Your task to perform on an android device: Open calendar and show me the second week of next month Image 0: 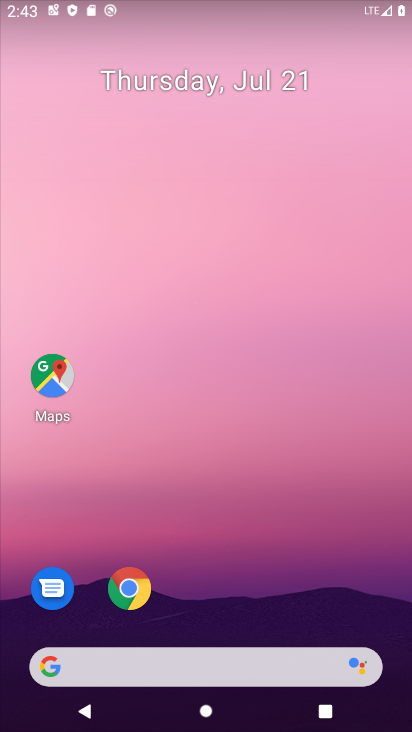
Step 0: drag from (172, 602) to (266, 352)
Your task to perform on an android device: Open calendar and show me the second week of next month Image 1: 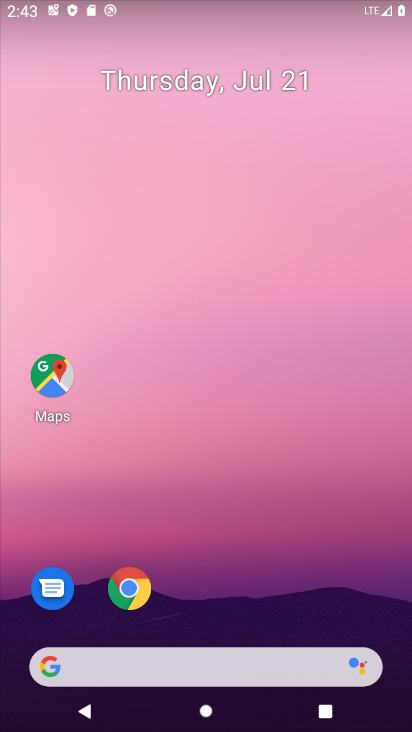
Step 1: drag from (189, 615) to (234, 314)
Your task to perform on an android device: Open calendar and show me the second week of next month Image 2: 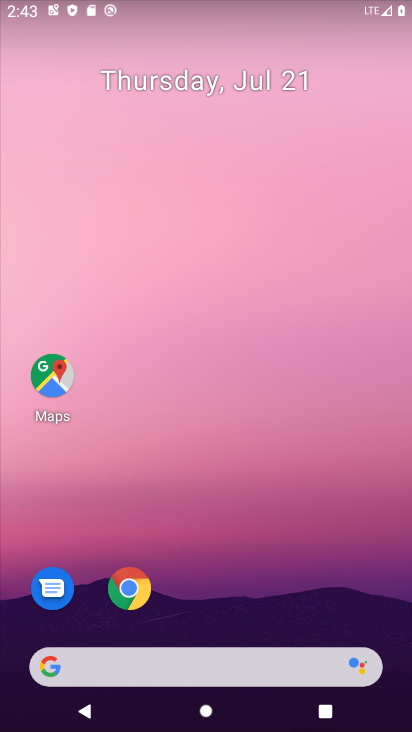
Step 2: drag from (233, 631) to (263, 242)
Your task to perform on an android device: Open calendar and show me the second week of next month Image 3: 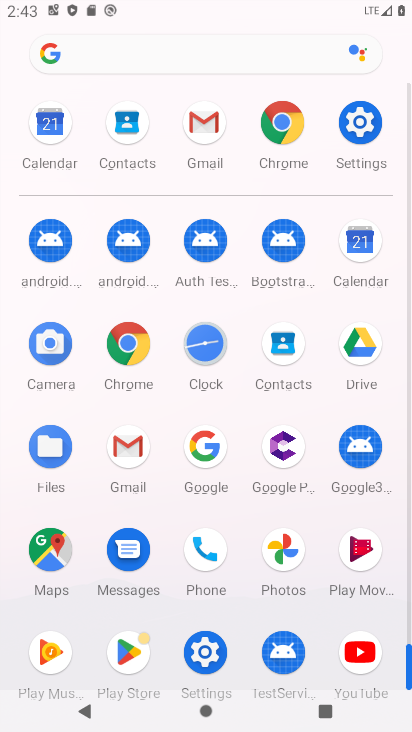
Step 3: drag from (260, 610) to (271, 438)
Your task to perform on an android device: Open calendar and show me the second week of next month Image 4: 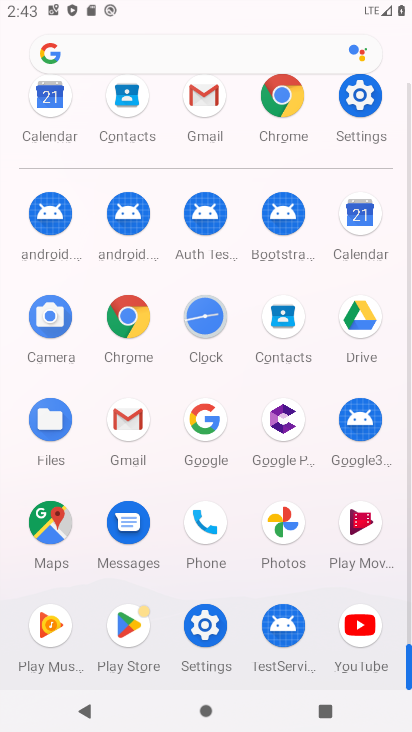
Step 4: click (203, 629)
Your task to perform on an android device: Open calendar and show me the second week of next month Image 5: 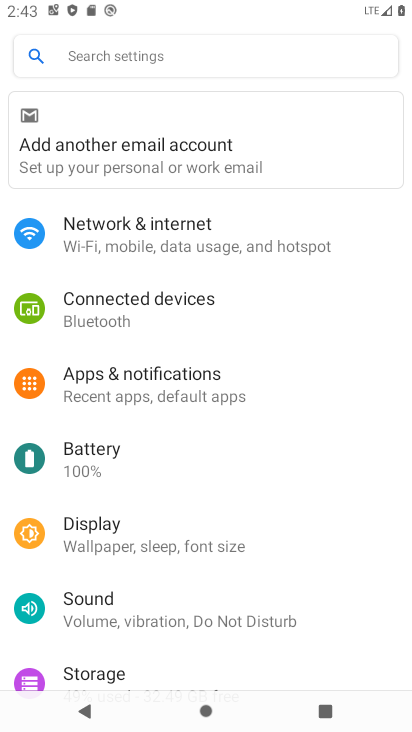
Step 5: press home button
Your task to perform on an android device: Open calendar and show me the second week of next month Image 6: 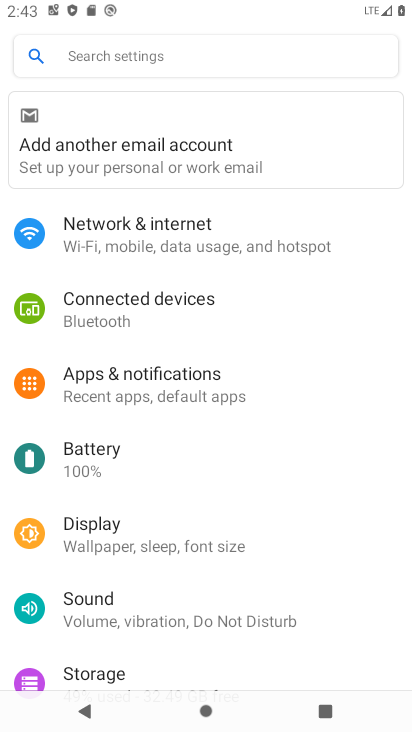
Step 6: press home button
Your task to perform on an android device: Open calendar and show me the second week of next month Image 7: 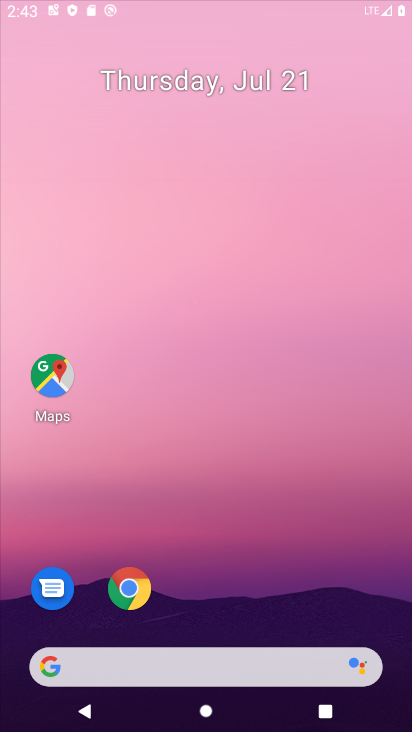
Step 7: drag from (183, 616) to (381, 17)
Your task to perform on an android device: Open calendar and show me the second week of next month Image 8: 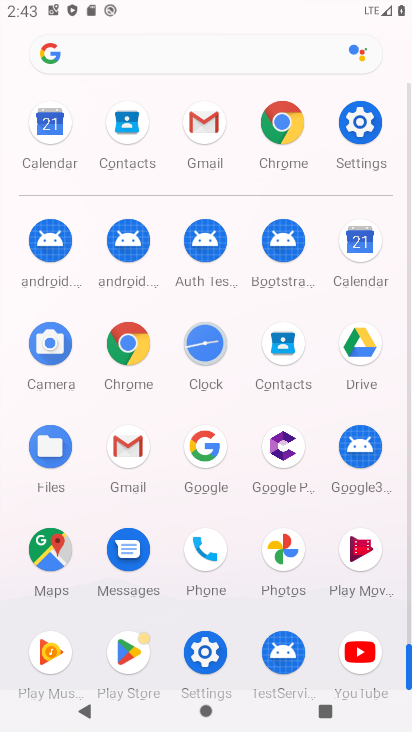
Step 8: drag from (169, 613) to (189, 181)
Your task to perform on an android device: Open calendar and show me the second week of next month Image 9: 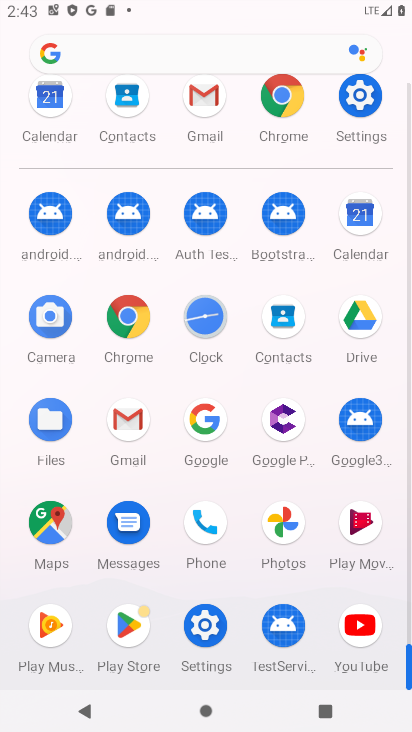
Step 9: click (354, 204)
Your task to perform on an android device: Open calendar and show me the second week of next month Image 10: 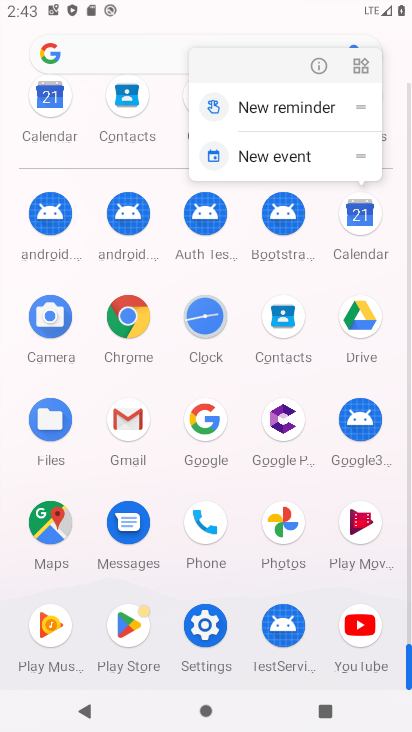
Step 10: click (316, 65)
Your task to perform on an android device: Open calendar and show me the second week of next month Image 11: 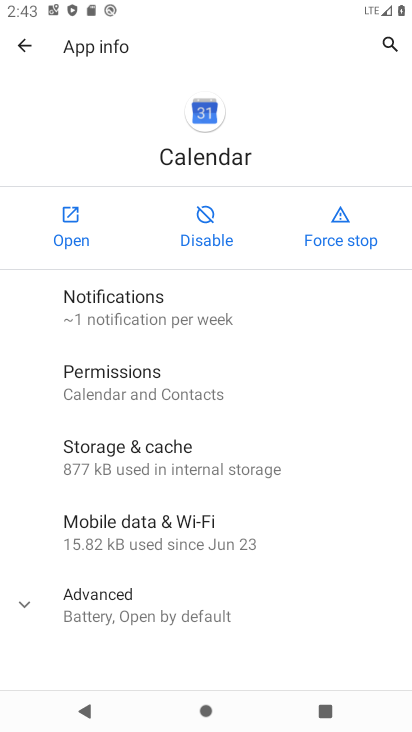
Step 11: click (68, 235)
Your task to perform on an android device: Open calendar and show me the second week of next month Image 12: 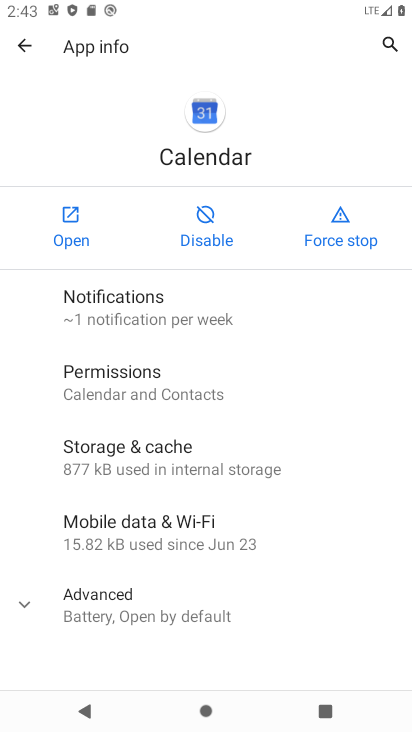
Step 12: click (66, 232)
Your task to perform on an android device: Open calendar and show me the second week of next month Image 13: 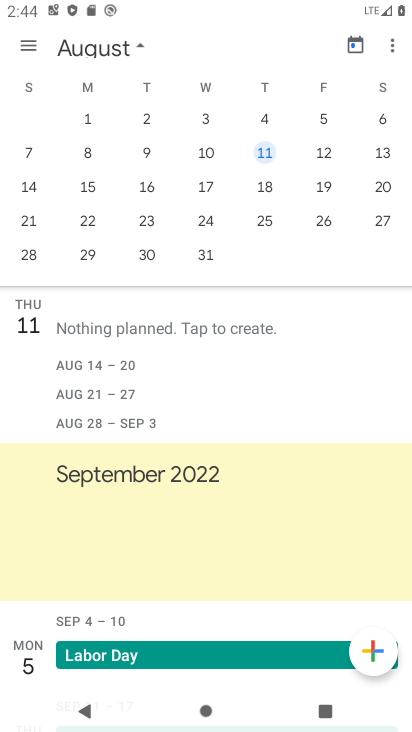
Step 13: click (81, 52)
Your task to perform on an android device: Open calendar and show me the second week of next month Image 14: 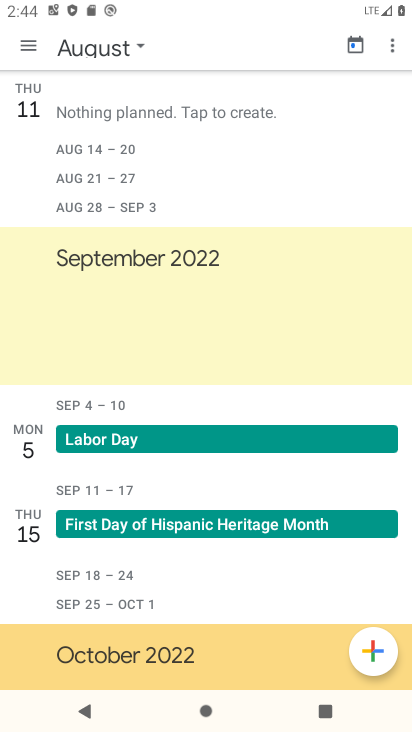
Step 14: click (372, 45)
Your task to perform on an android device: Open calendar and show me the second week of next month Image 15: 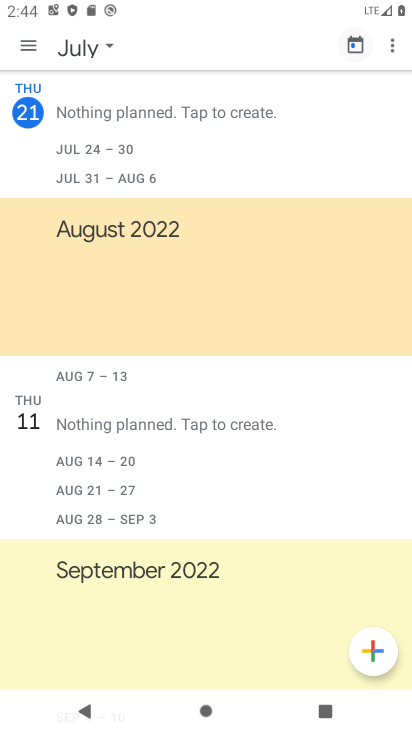
Step 15: click (372, 45)
Your task to perform on an android device: Open calendar and show me the second week of next month Image 16: 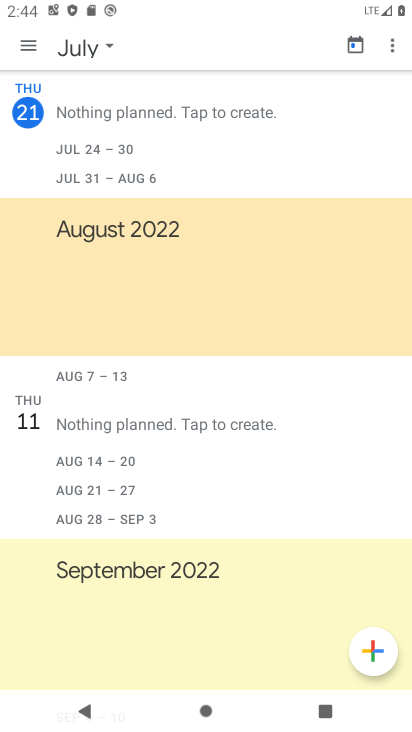
Step 16: click (366, 37)
Your task to perform on an android device: Open calendar and show me the second week of next month Image 17: 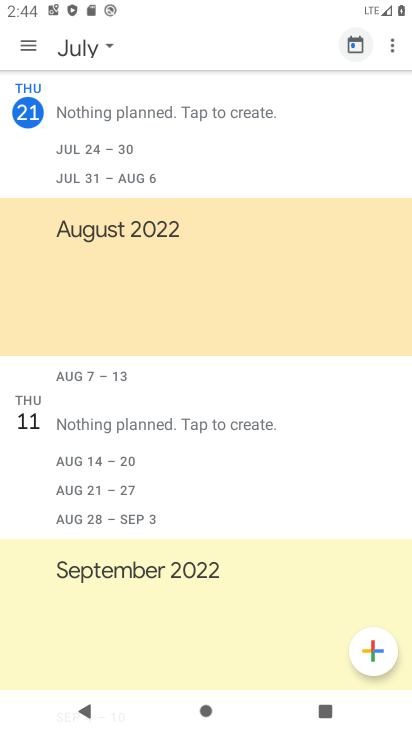
Step 17: click (344, 43)
Your task to perform on an android device: Open calendar and show me the second week of next month Image 18: 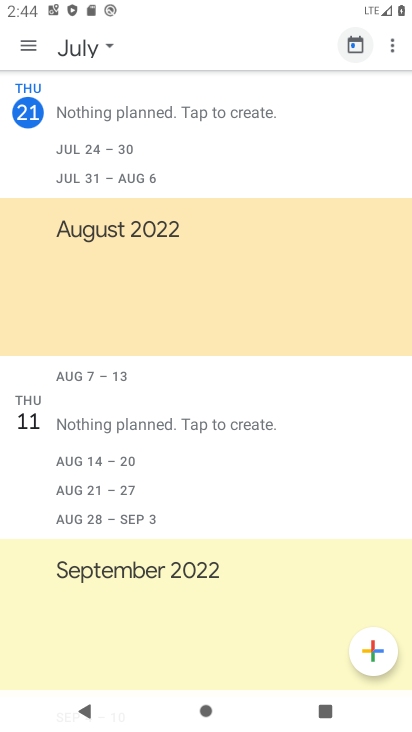
Step 18: click (348, 44)
Your task to perform on an android device: Open calendar and show me the second week of next month Image 19: 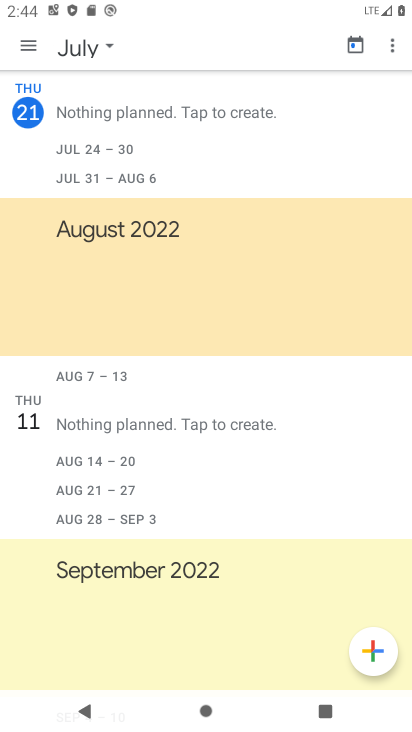
Step 19: click (70, 56)
Your task to perform on an android device: Open calendar and show me the second week of next month Image 20: 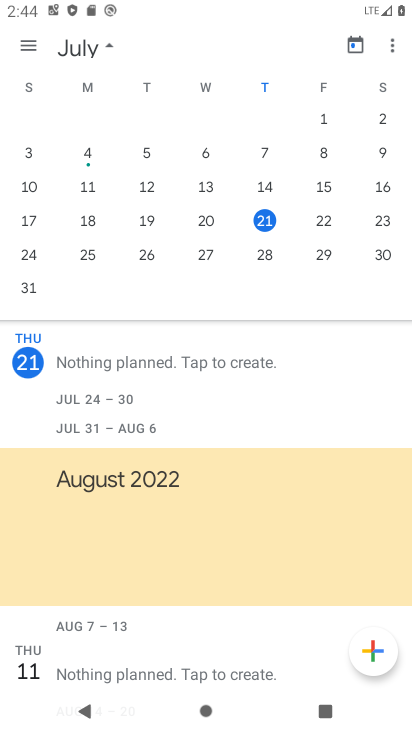
Step 20: drag from (370, 260) to (9, 218)
Your task to perform on an android device: Open calendar and show me the second week of next month Image 21: 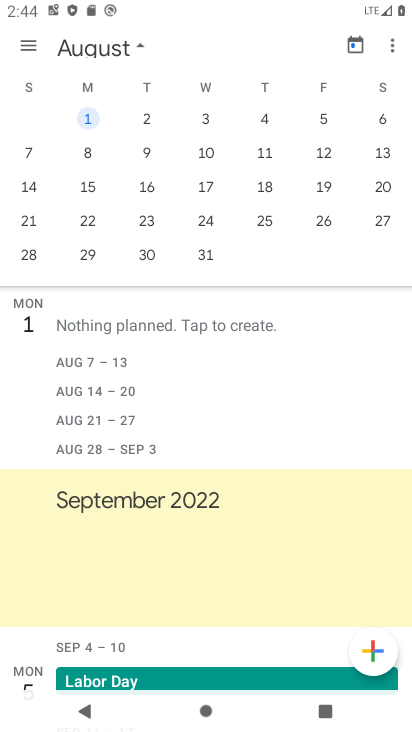
Step 21: click (268, 157)
Your task to perform on an android device: Open calendar and show me the second week of next month Image 22: 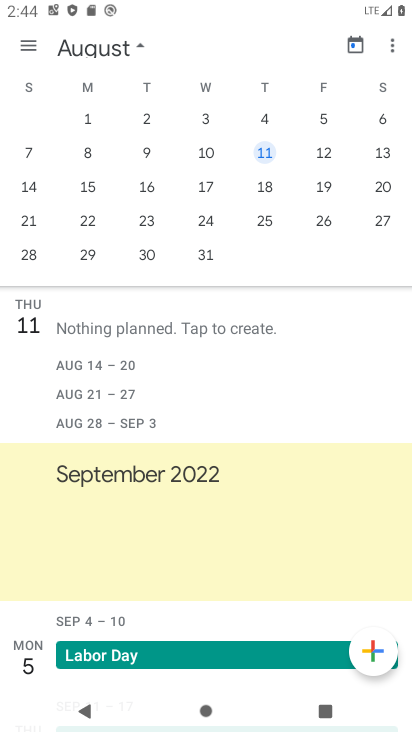
Step 22: task complete